Your task to perform on an android device: What's the weather going to be tomorrow? Image 0: 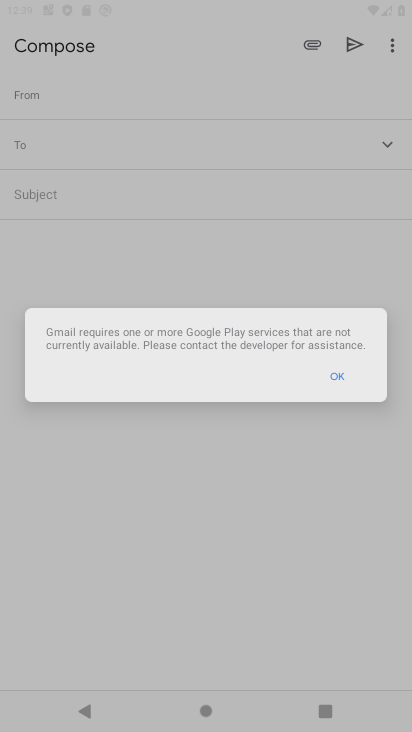
Step 0: drag from (228, 526) to (264, 266)
Your task to perform on an android device: What's the weather going to be tomorrow? Image 1: 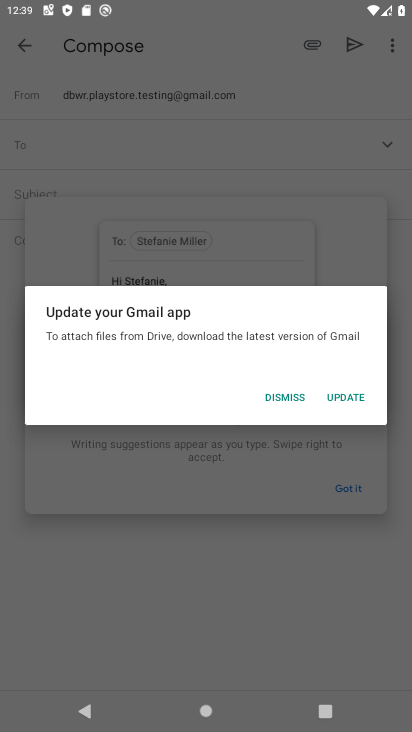
Step 1: press home button
Your task to perform on an android device: What's the weather going to be tomorrow? Image 2: 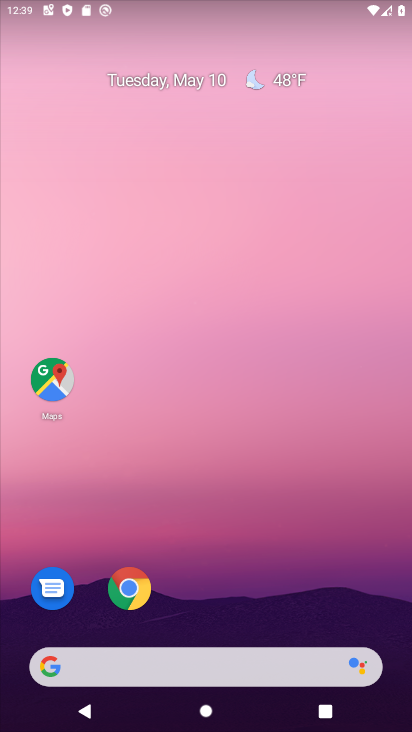
Step 2: drag from (226, 583) to (234, 454)
Your task to perform on an android device: What's the weather going to be tomorrow? Image 3: 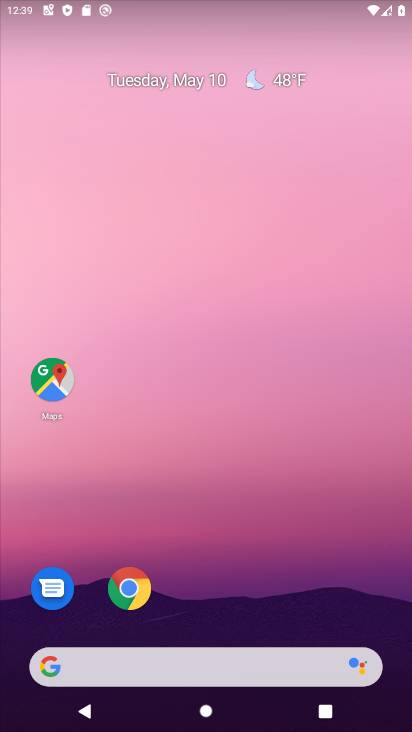
Step 3: click (112, 600)
Your task to perform on an android device: What's the weather going to be tomorrow? Image 4: 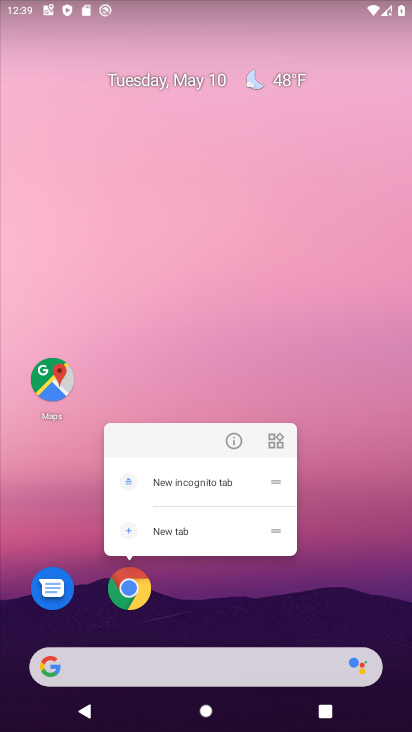
Step 4: click (198, 597)
Your task to perform on an android device: What's the weather going to be tomorrow? Image 5: 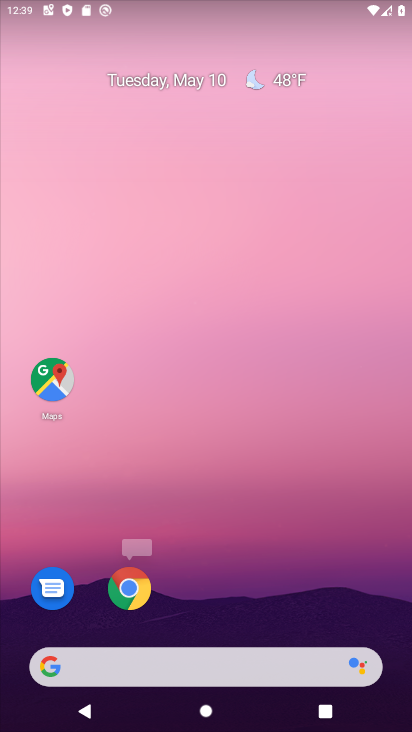
Step 5: click (121, 589)
Your task to perform on an android device: What's the weather going to be tomorrow? Image 6: 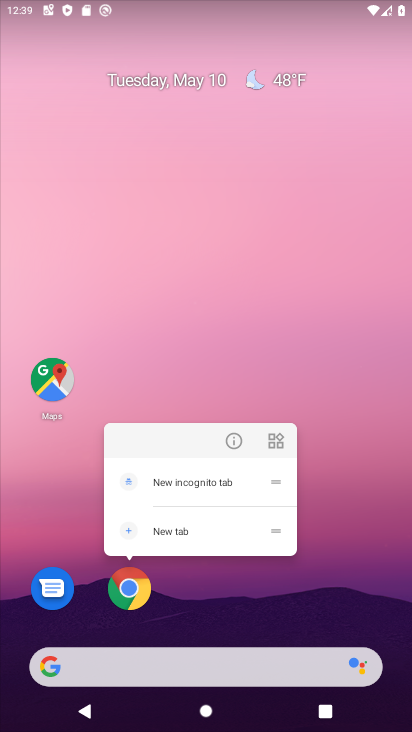
Step 6: click (123, 587)
Your task to perform on an android device: What's the weather going to be tomorrow? Image 7: 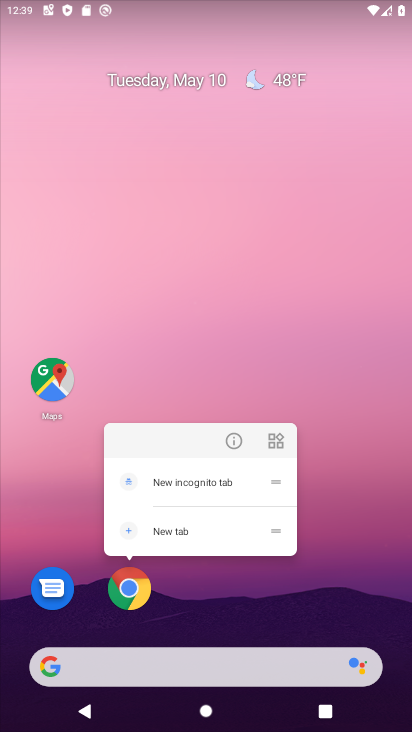
Step 7: click (125, 586)
Your task to perform on an android device: What's the weather going to be tomorrow? Image 8: 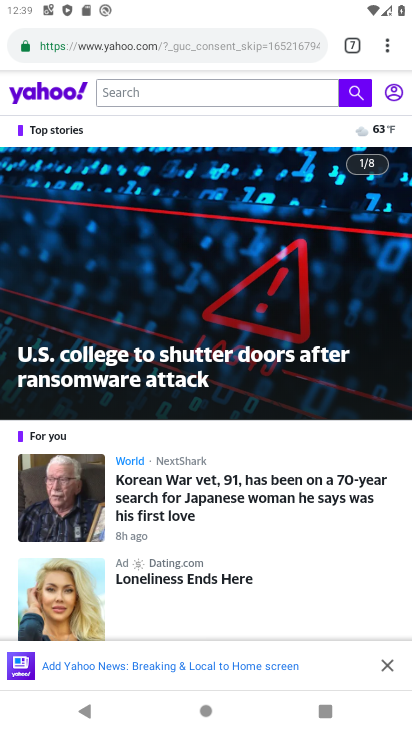
Step 8: click (381, 38)
Your task to perform on an android device: What's the weather going to be tomorrow? Image 9: 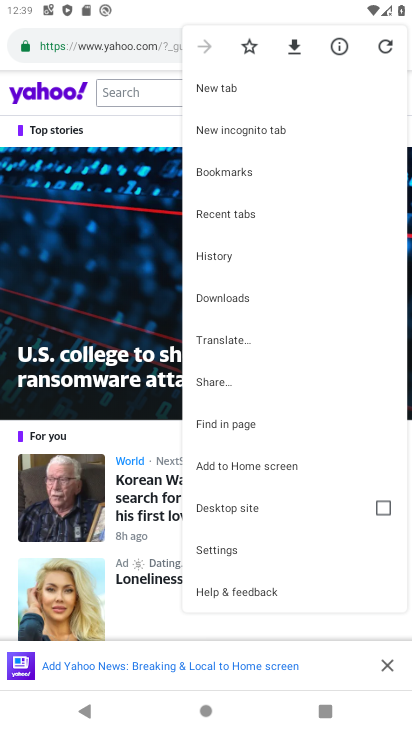
Step 9: click (228, 80)
Your task to perform on an android device: What's the weather going to be tomorrow? Image 10: 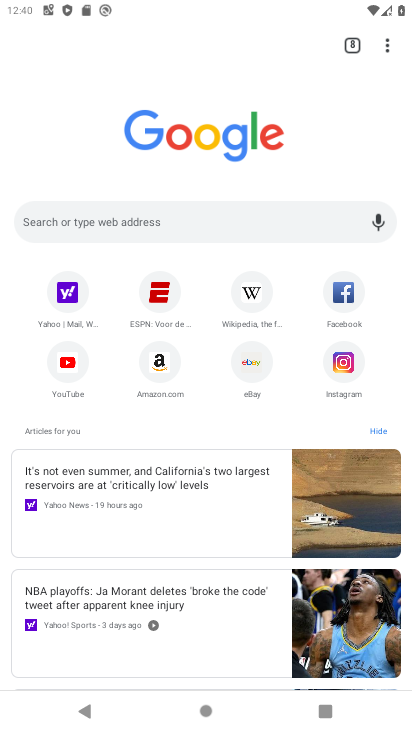
Step 10: drag from (394, 681) to (410, 513)
Your task to perform on an android device: What's the weather going to be tomorrow? Image 11: 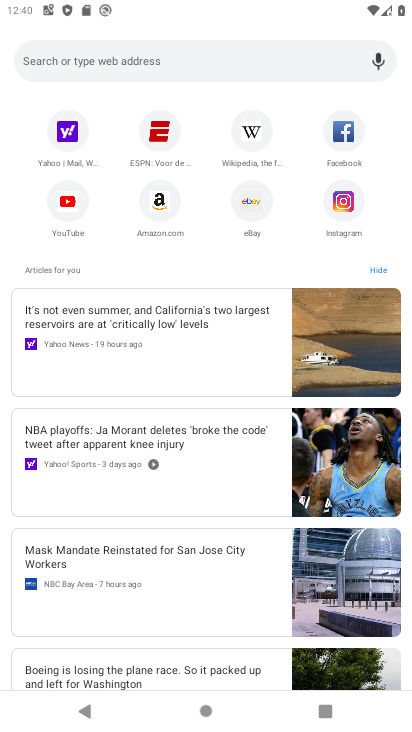
Step 11: click (279, 45)
Your task to perform on an android device: What's the weather going to be tomorrow? Image 12: 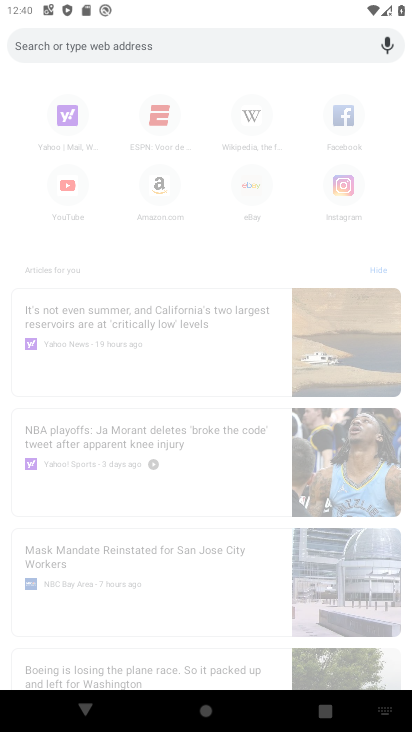
Step 12: type "What's the weather going to be tomorrow?"
Your task to perform on an android device: What's the weather going to be tomorrow? Image 13: 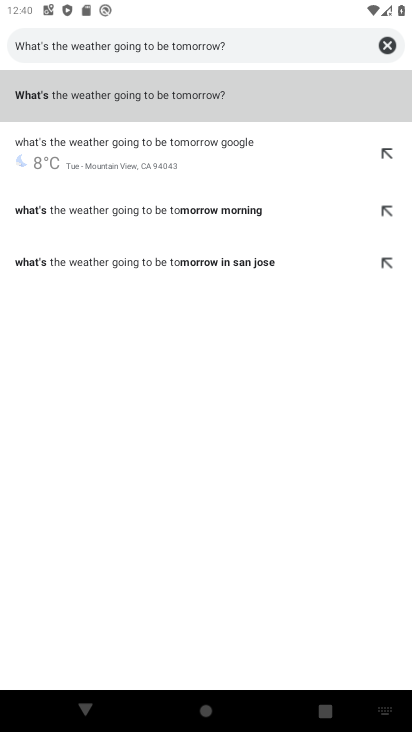
Step 13: click (206, 148)
Your task to perform on an android device: What's the weather going to be tomorrow? Image 14: 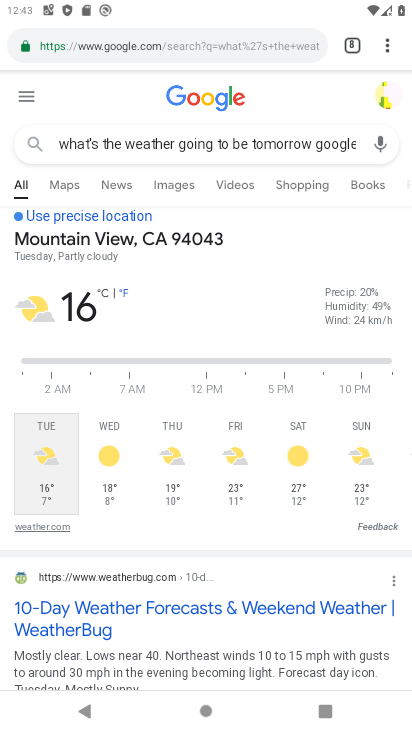
Step 14: task complete